Your task to perform on an android device: empty trash in the gmail app Image 0: 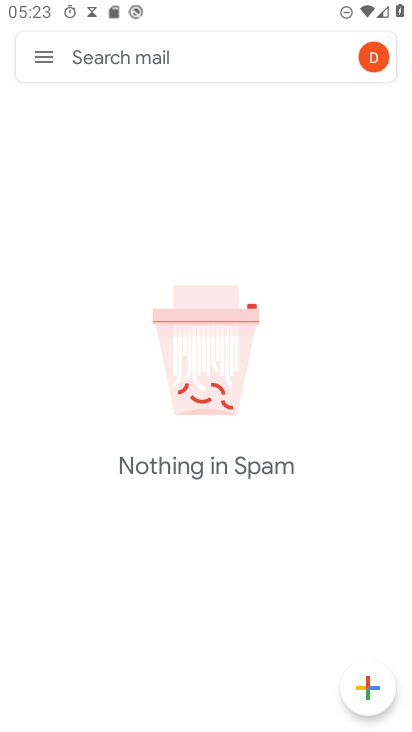
Step 0: click (136, 609)
Your task to perform on an android device: empty trash in the gmail app Image 1: 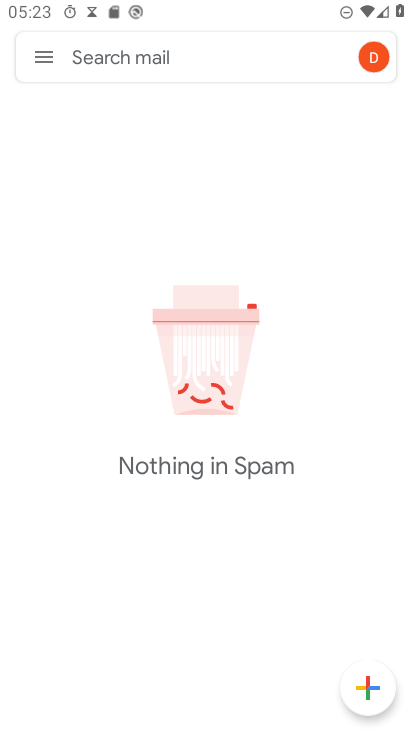
Step 1: click (48, 52)
Your task to perform on an android device: empty trash in the gmail app Image 2: 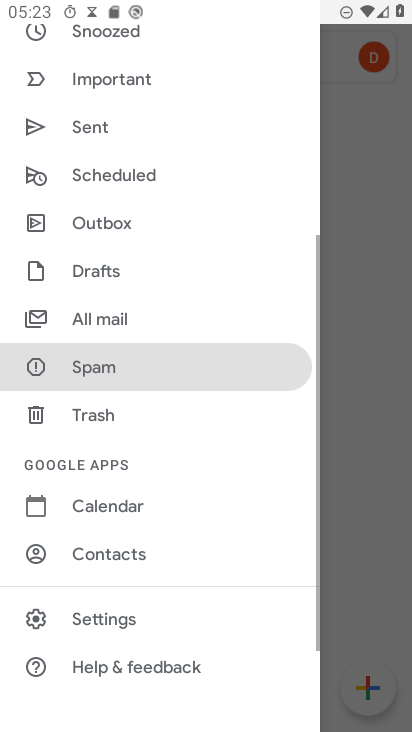
Step 2: click (107, 418)
Your task to perform on an android device: empty trash in the gmail app Image 3: 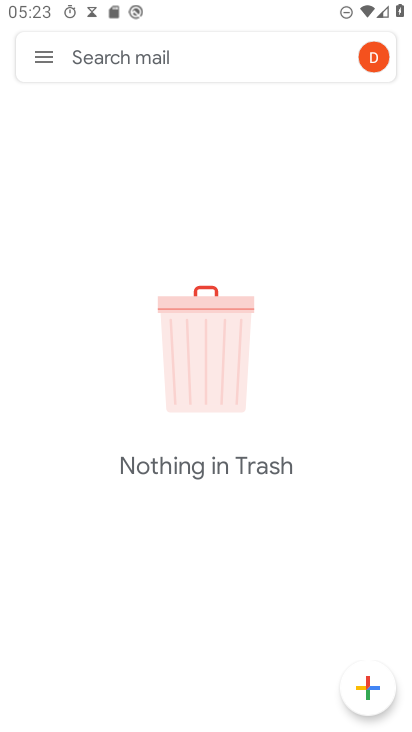
Step 3: task complete